Your task to perform on an android device: Open accessibility settings Image 0: 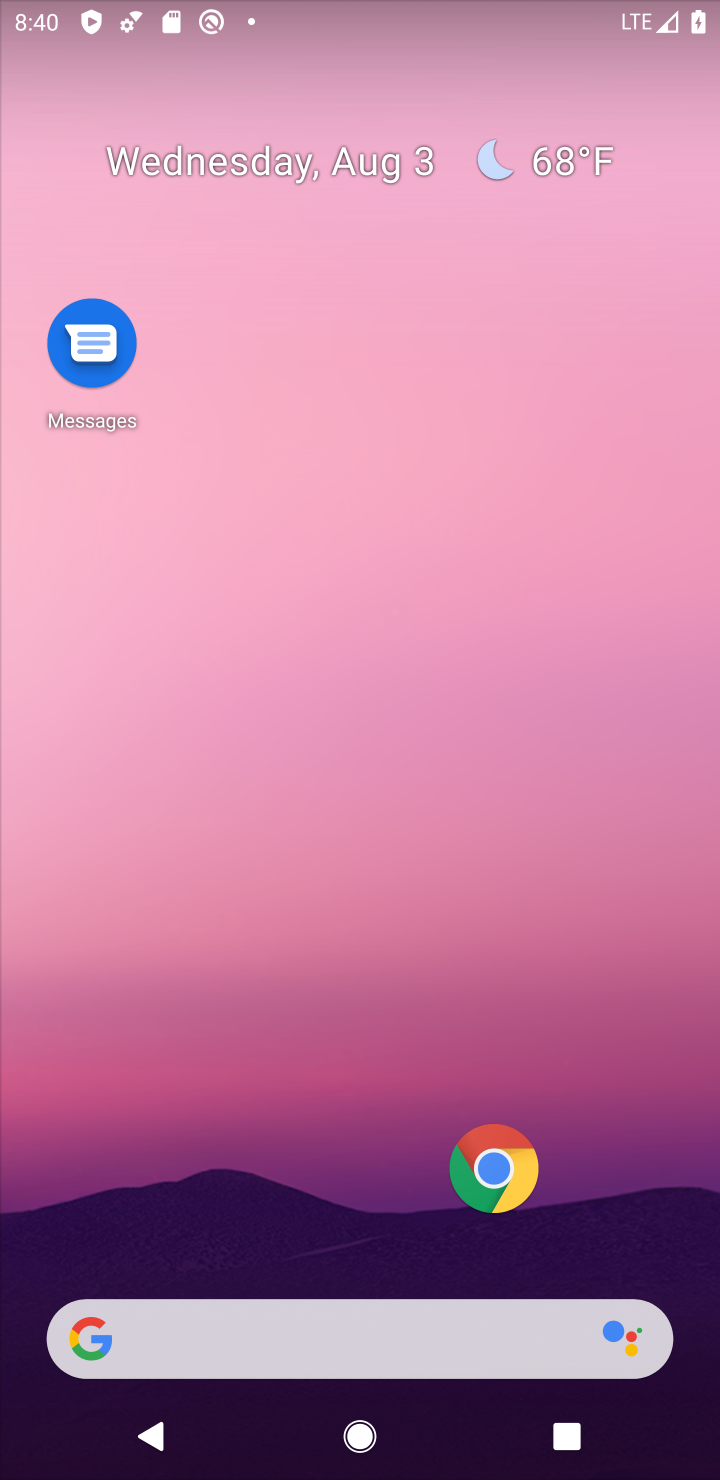
Step 0: drag from (471, 1257) to (414, 33)
Your task to perform on an android device: Open accessibility settings Image 1: 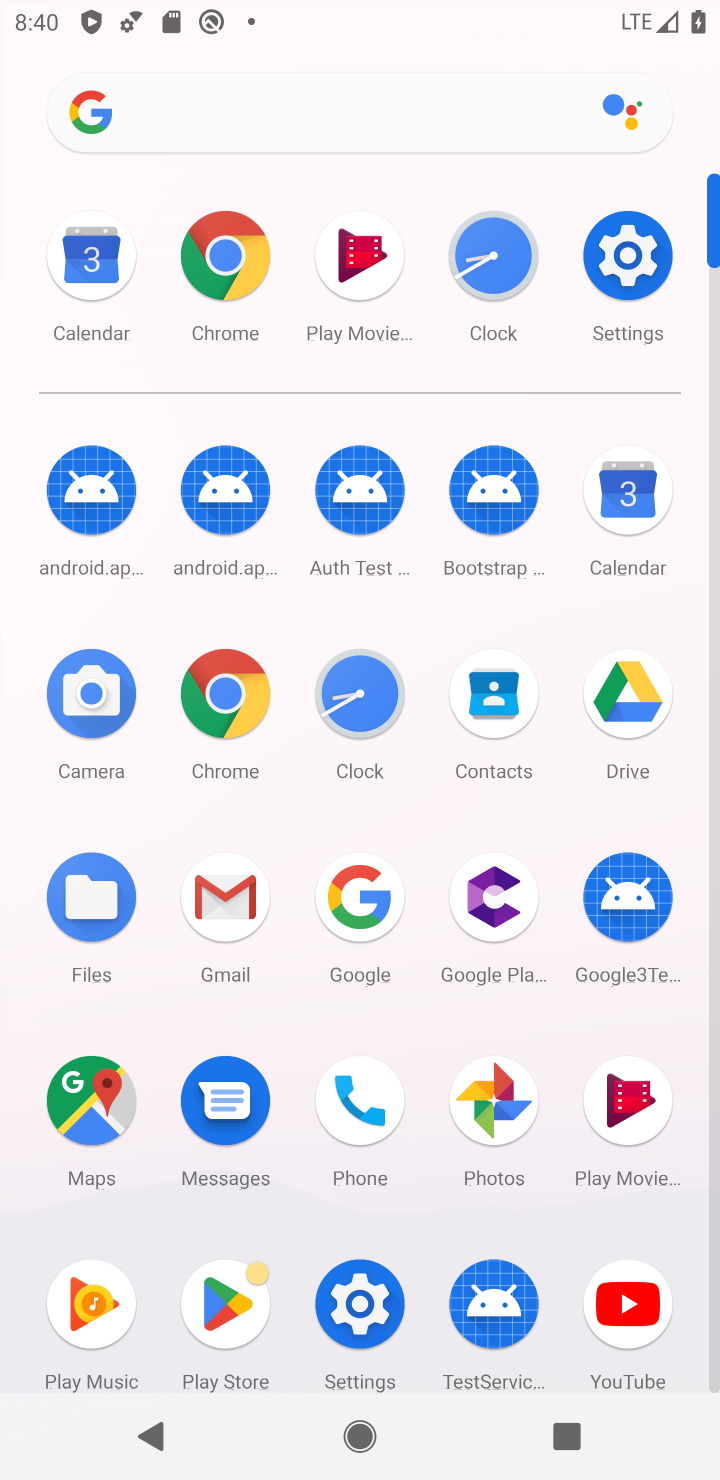
Step 1: click (373, 1306)
Your task to perform on an android device: Open accessibility settings Image 2: 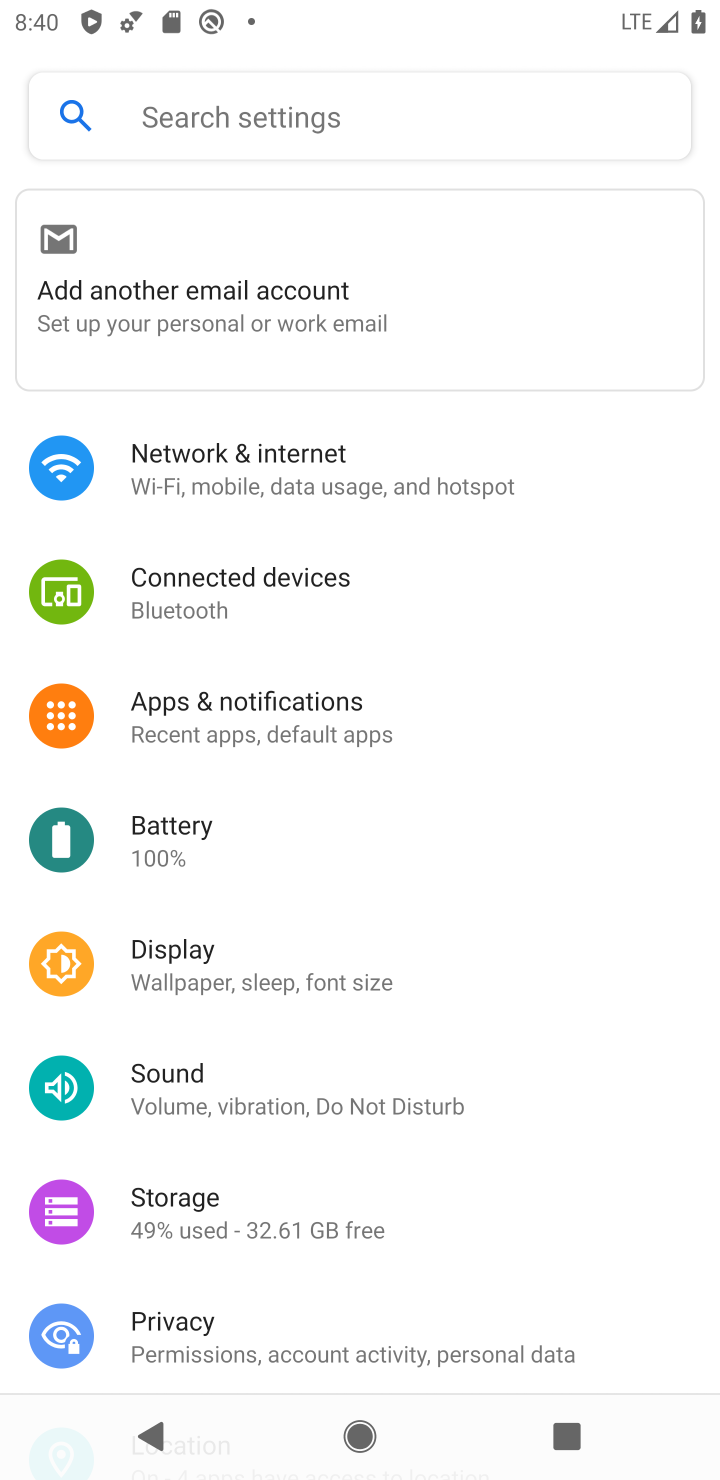
Step 2: drag from (362, 1243) to (396, 327)
Your task to perform on an android device: Open accessibility settings Image 3: 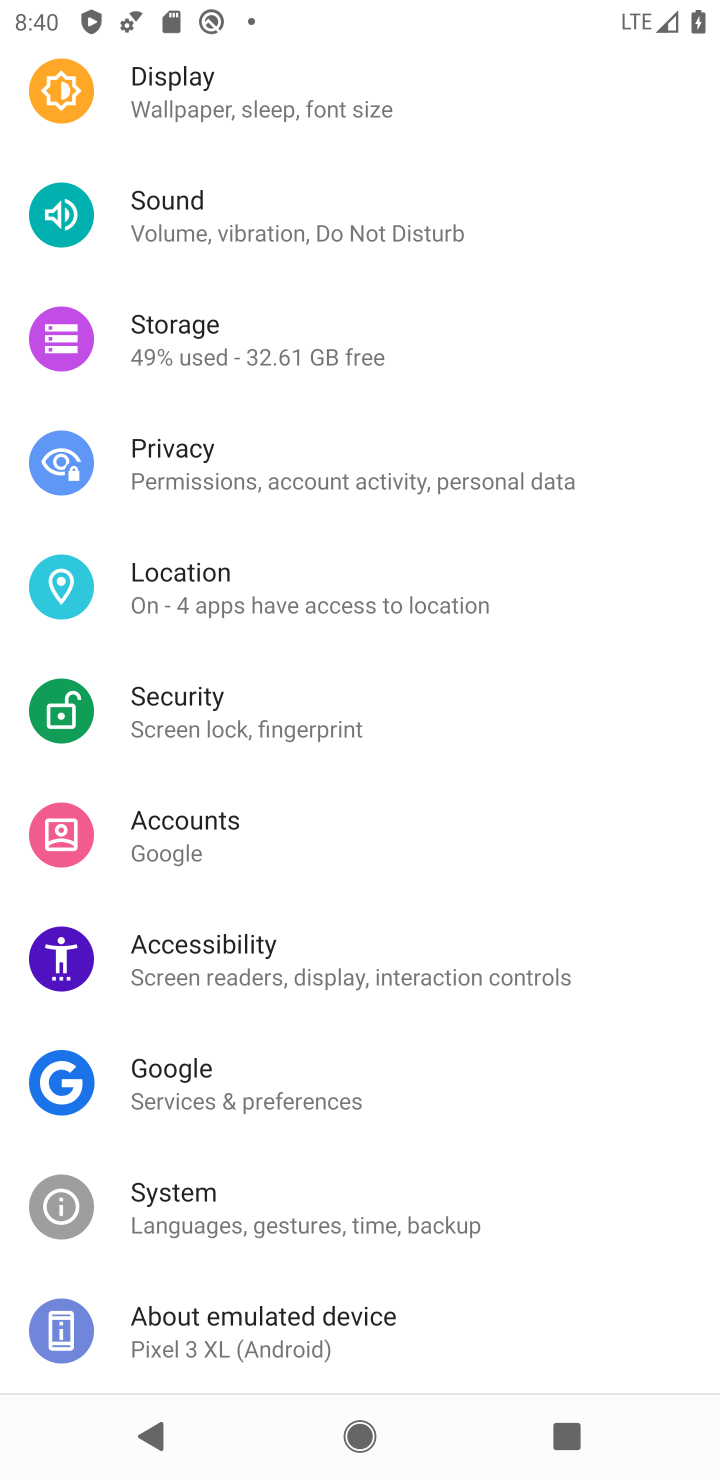
Step 3: click (232, 975)
Your task to perform on an android device: Open accessibility settings Image 4: 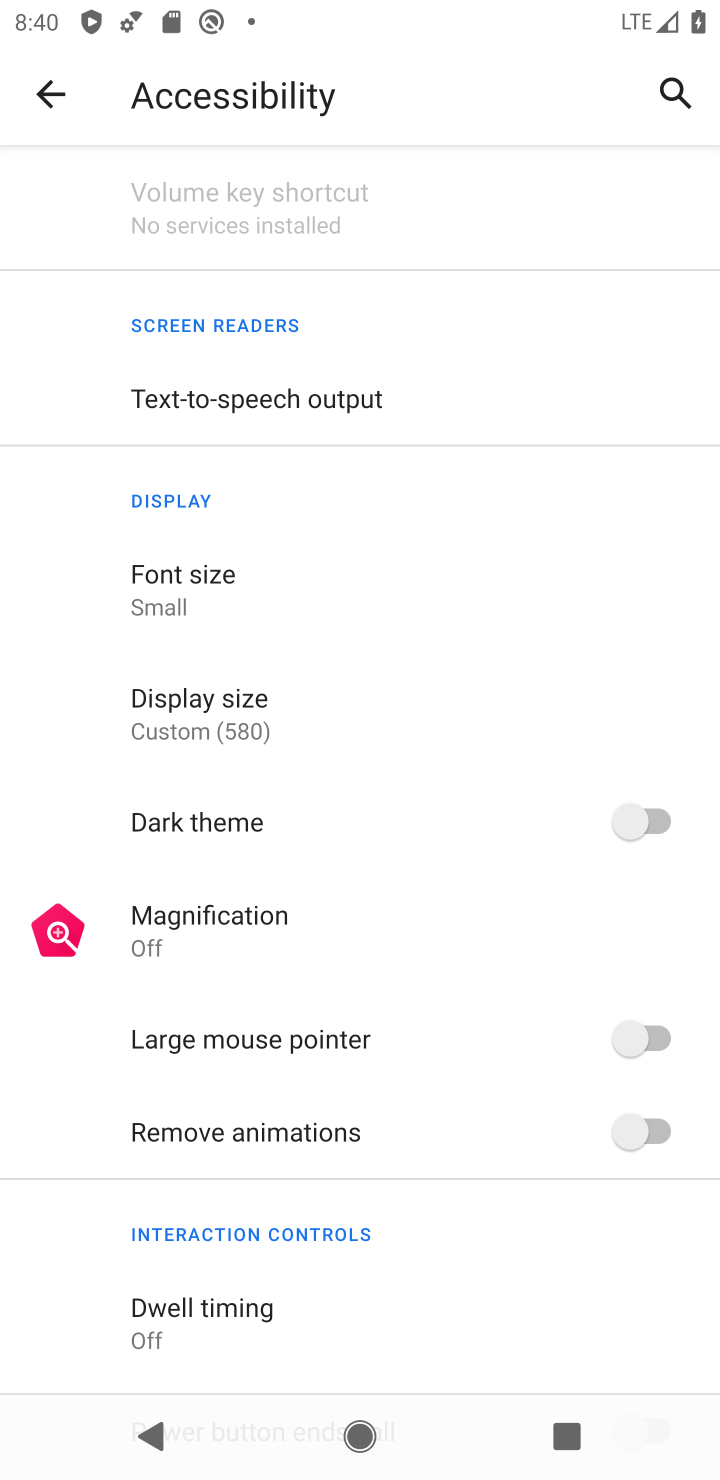
Step 4: task complete